Your task to perform on an android device: Open the map Image 0: 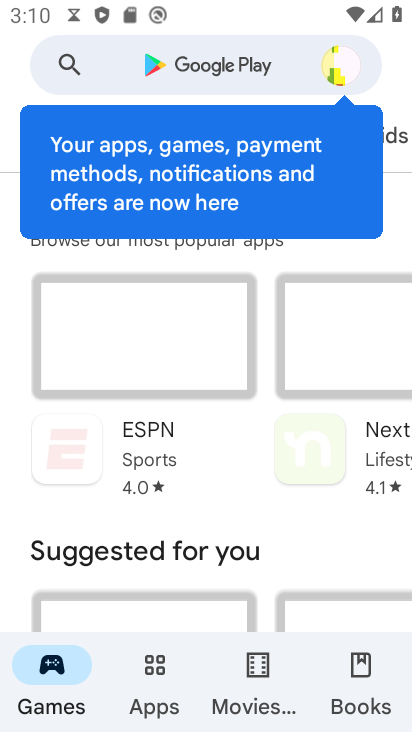
Step 0: press back button
Your task to perform on an android device: Open the map Image 1: 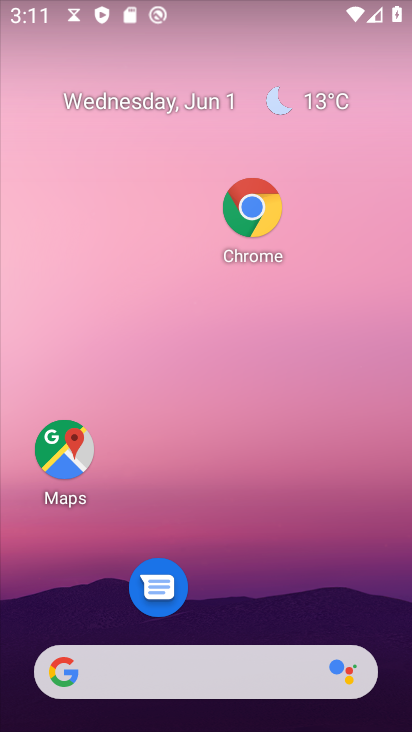
Step 1: drag from (311, 691) to (240, 120)
Your task to perform on an android device: Open the map Image 2: 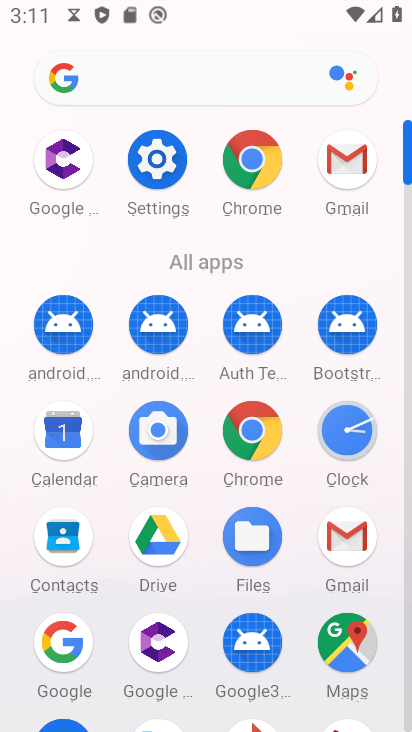
Step 2: click (342, 658)
Your task to perform on an android device: Open the map Image 3: 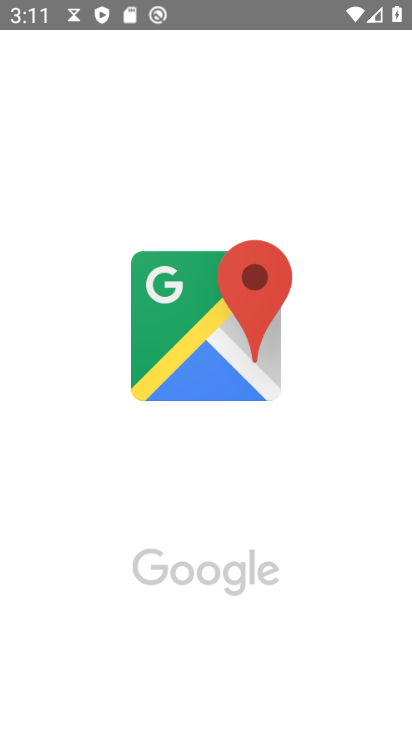
Step 3: task complete